Your task to perform on an android device: Play the last video I watched on Youtube Image 0: 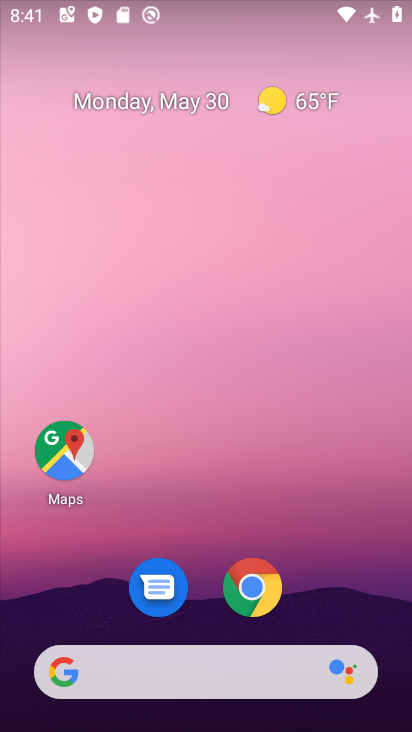
Step 0: drag from (183, 670) to (327, 99)
Your task to perform on an android device: Play the last video I watched on Youtube Image 1: 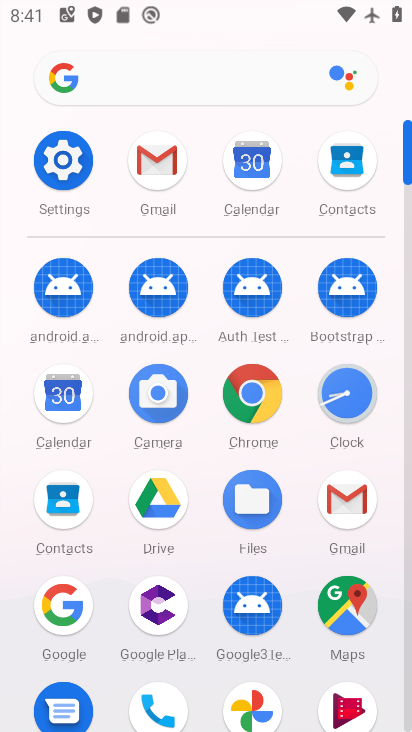
Step 1: drag from (304, 666) to (379, 229)
Your task to perform on an android device: Play the last video I watched on Youtube Image 2: 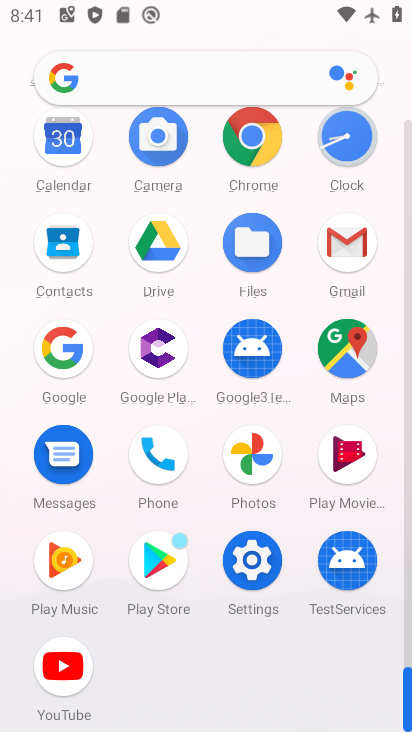
Step 2: click (74, 666)
Your task to perform on an android device: Play the last video I watched on Youtube Image 3: 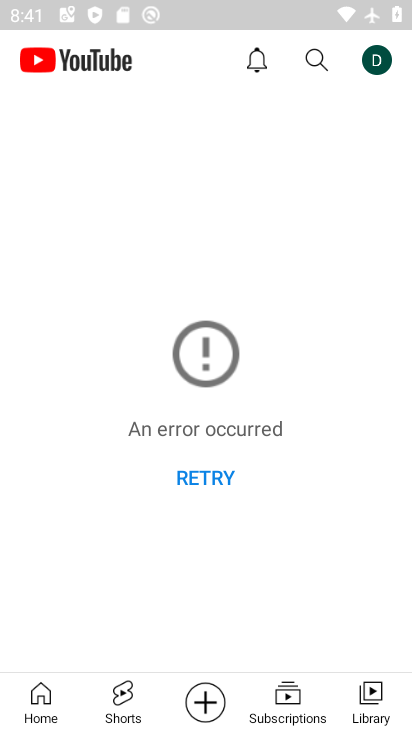
Step 3: click (223, 472)
Your task to perform on an android device: Play the last video I watched on Youtube Image 4: 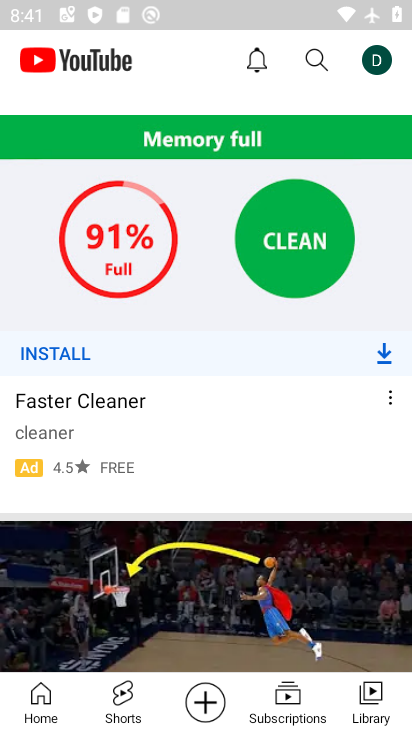
Step 4: click (367, 697)
Your task to perform on an android device: Play the last video I watched on Youtube Image 5: 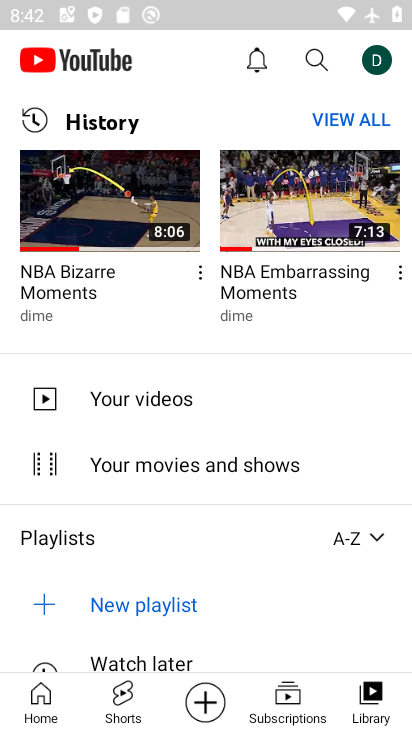
Step 5: click (115, 206)
Your task to perform on an android device: Play the last video I watched on Youtube Image 6: 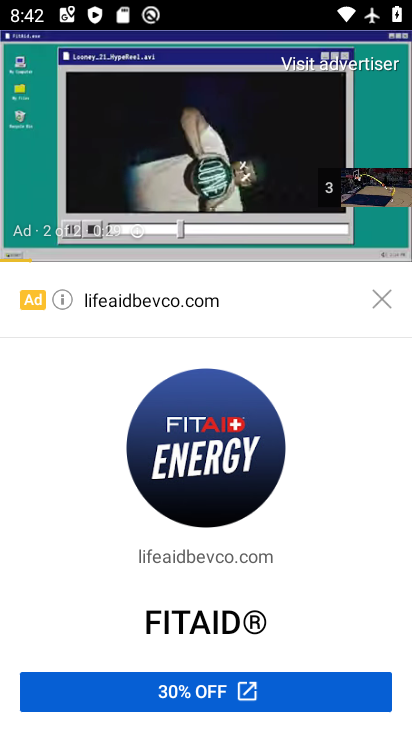
Step 6: click (377, 299)
Your task to perform on an android device: Play the last video I watched on Youtube Image 7: 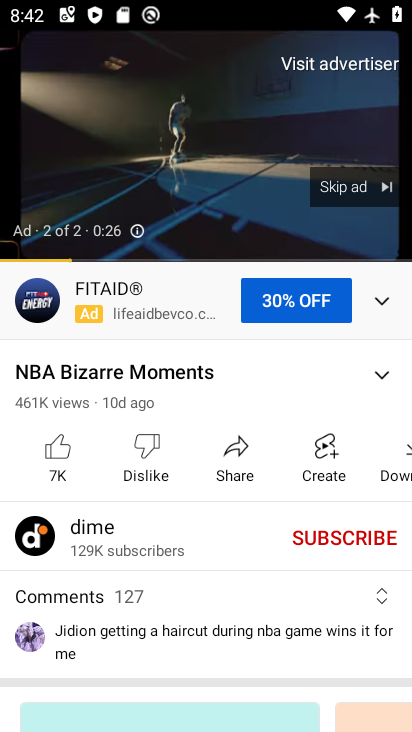
Step 7: click (335, 192)
Your task to perform on an android device: Play the last video I watched on Youtube Image 8: 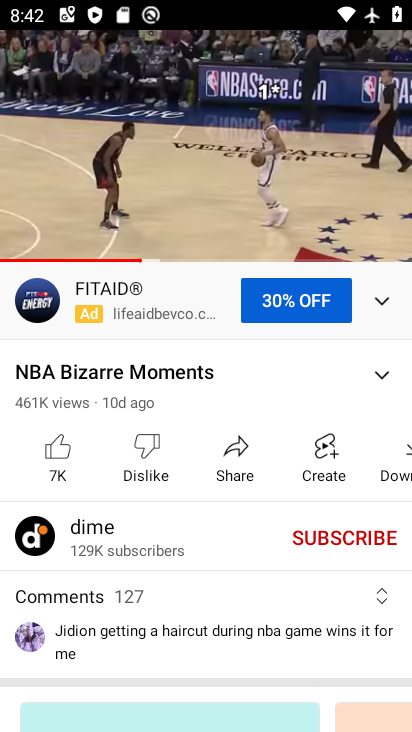
Step 8: click (244, 174)
Your task to perform on an android device: Play the last video I watched on Youtube Image 9: 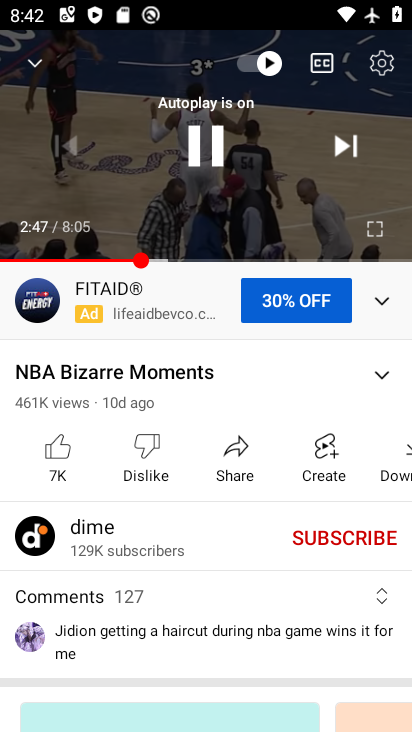
Step 9: click (208, 140)
Your task to perform on an android device: Play the last video I watched on Youtube Image 10: 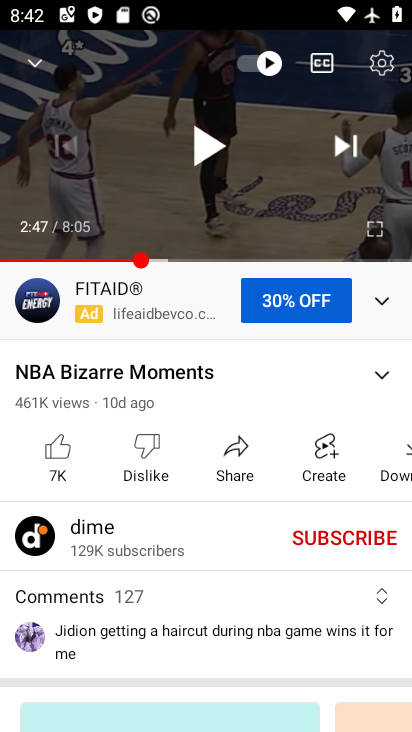
Step 10: task complete